Your task to perform on an android device: Go to Amazon Image 0: 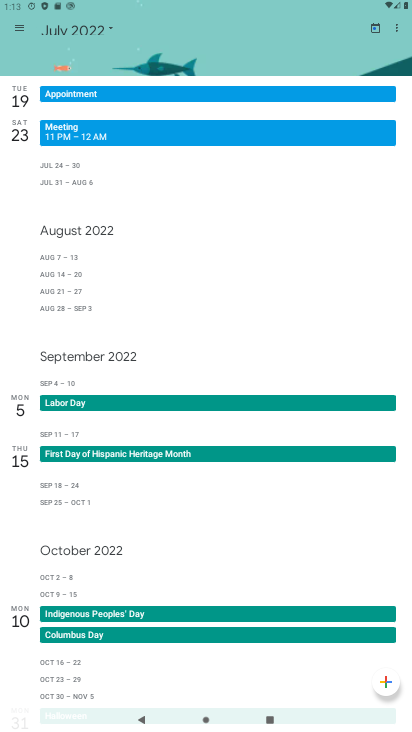
Step 0: press home button
Your task to perform on an android device: Go to Amazon Image 1: 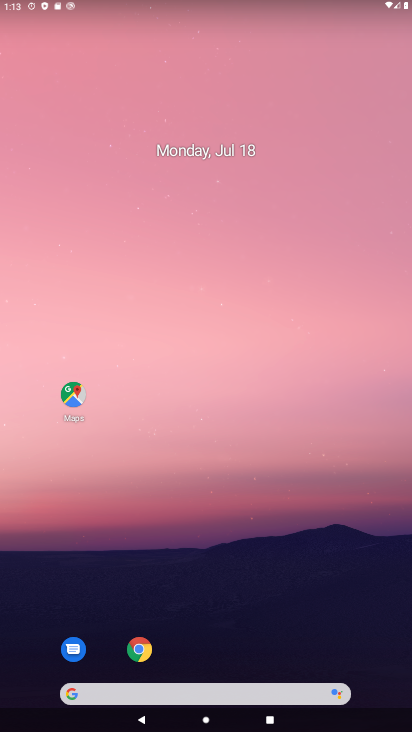
Step 1: drag from (218, 654) to (184, 125)
Your task to perform on an android device: Go to Amazon Image 2: 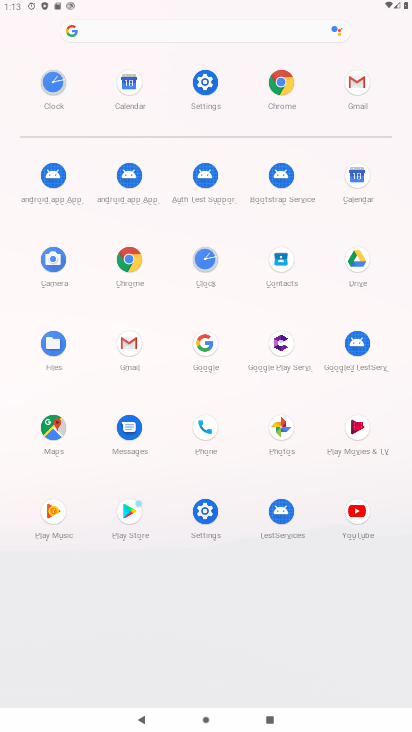
Step 2: click (133, 260)
Your task to perform on an android device: Go to Amazon Image 3: 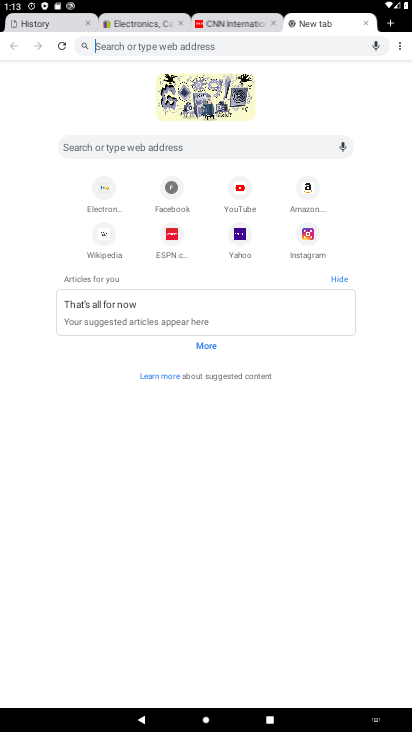
Step 3: click (295, 187)
Your task to perform on an android device: Go to Amazon Image 4: 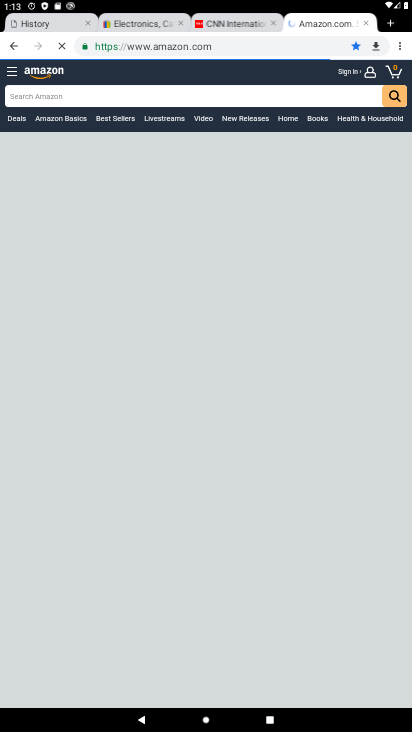
Step 4: task complete